Your task to perform on an android device: check battery use Image 0: 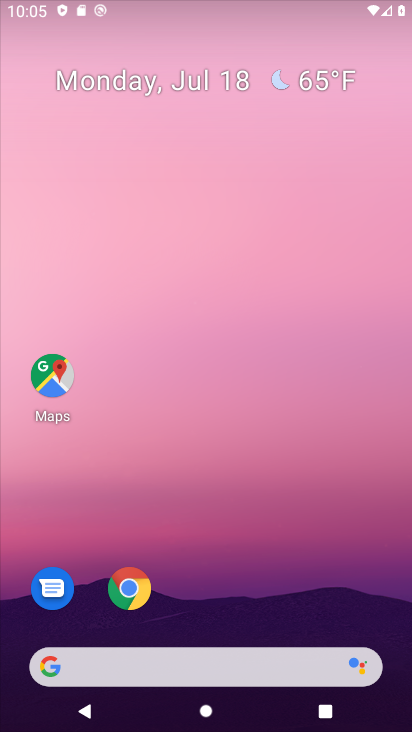
Step 0: press home button
Your task to perform on an android device: check battery use Image 1: 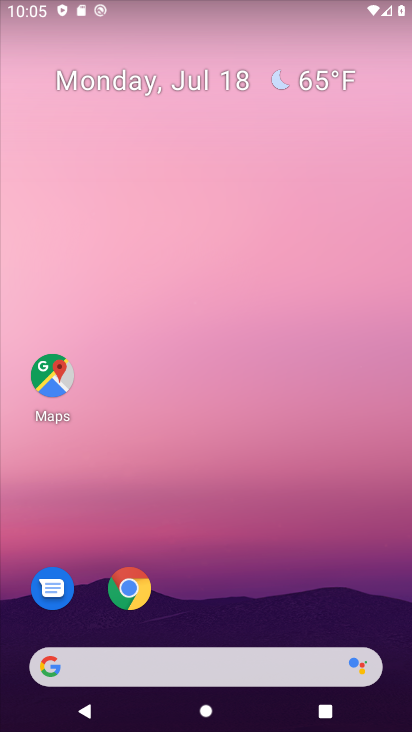
Step 1: drag from (266, 599) to (288, 52)
Your task to perform on an android device: check battery use Image 2: 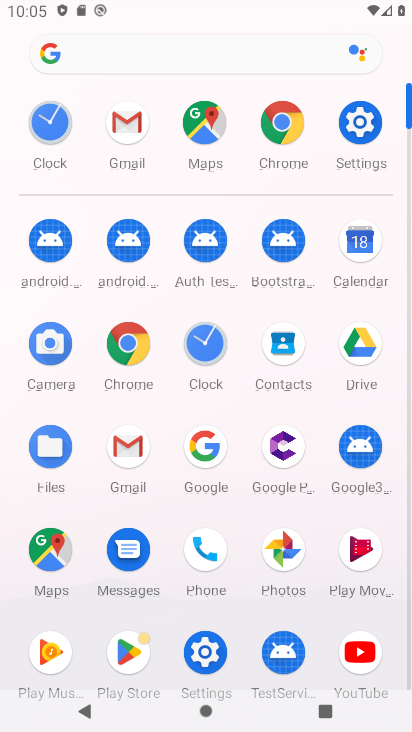
Step 2: click (365, 128)
Your task to perform on an android device: check battery use Image 3: 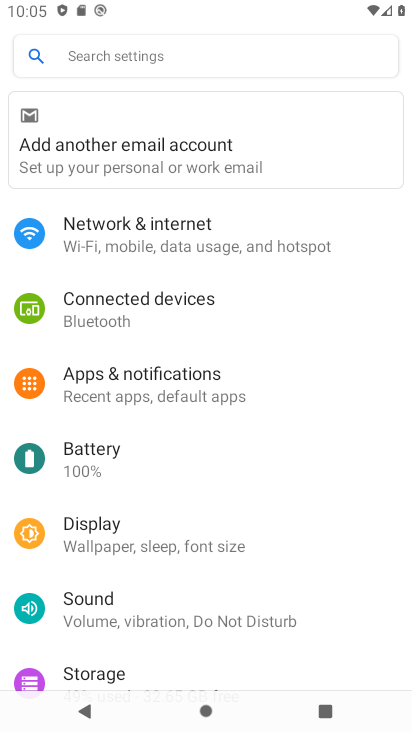
Step 3: click (132, 471)
Your task to perform on an android device: check battery use Image 4: 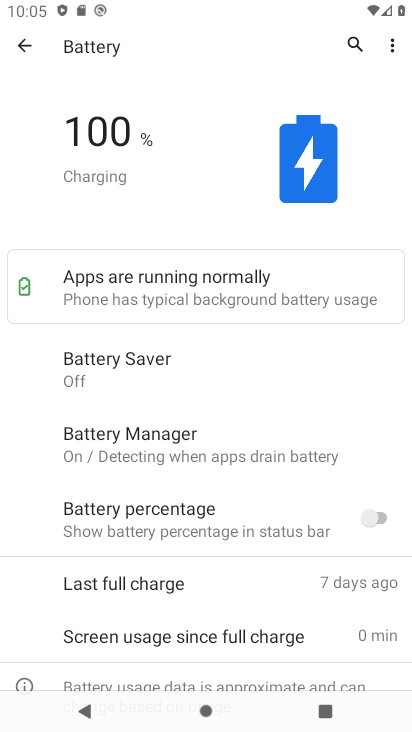
Step 4: task complete